Your task to perform on an android device: delete location history Image 0: 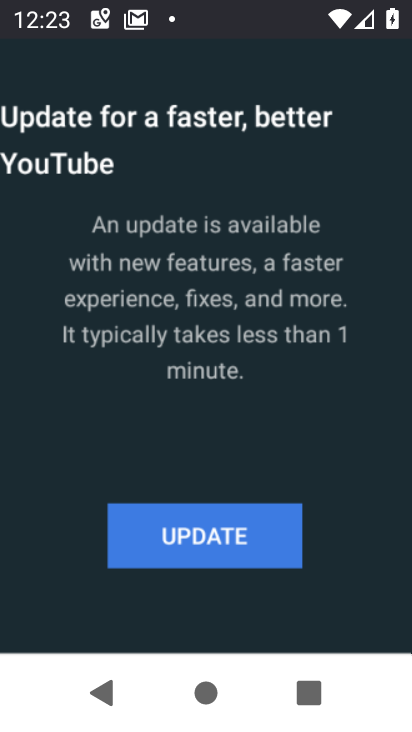
Step 0: press home button
Your task to perform on an android device: delete location history Image 1: 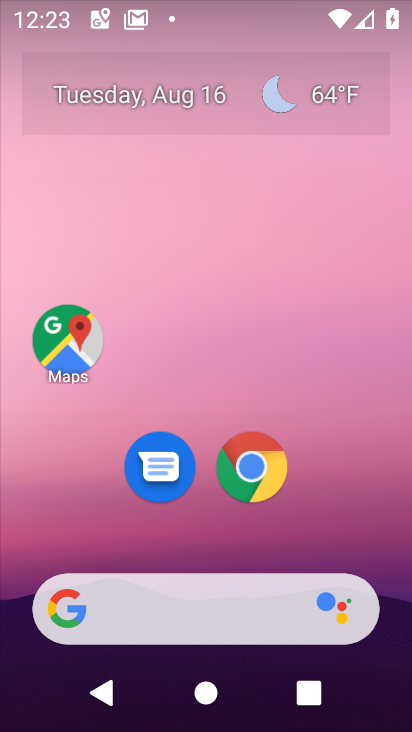
Step 1: drag from (374, 559) to (392, 92)
Your task to perform on an android device: delete location history Image 2: 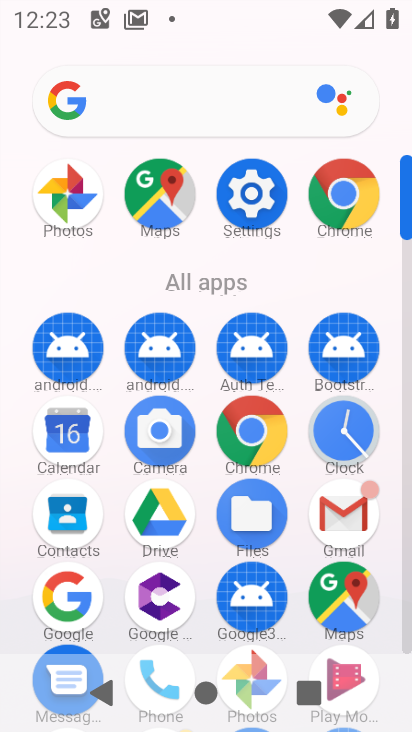
Step 2: click (168, 213)
Your task to perform on an android device: delete location history Image 3: 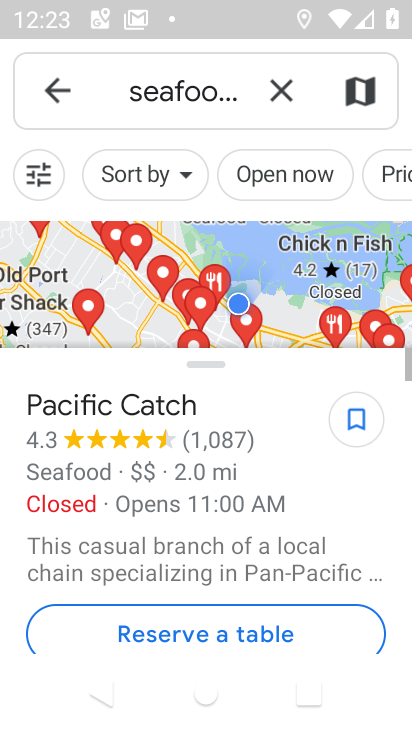
Step 3: press back button
Your task to perform on an android device: delete location history Image 4: 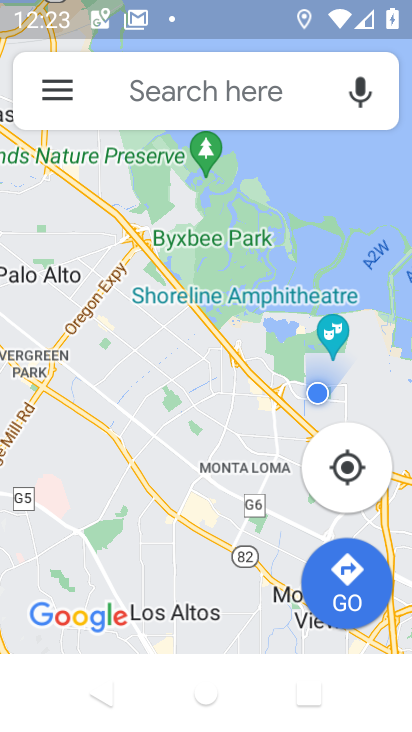
Step 4: click (55, 88)
Your task to perform on an android device: delete location history Image 5: 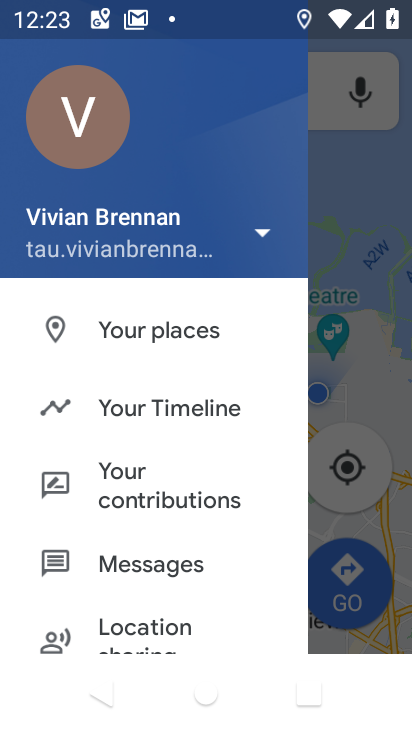
Step 5: click (235, 403)
Your task to perform on an android device: delete location history Image 6: 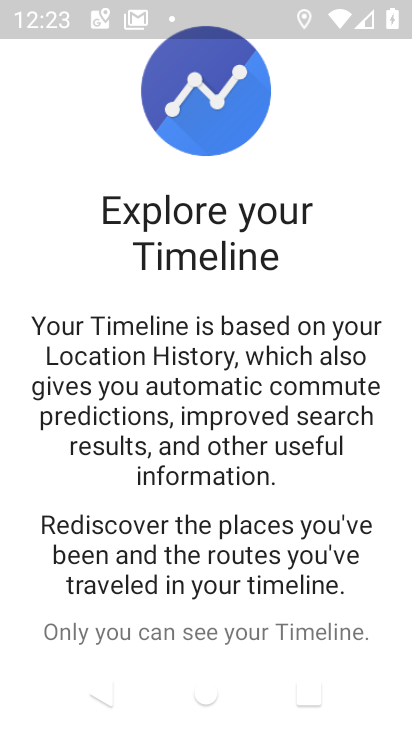
Step 6: drag from (254, 529) to (287, 302)
Your task to perform on an android device: delete location history Image 7: 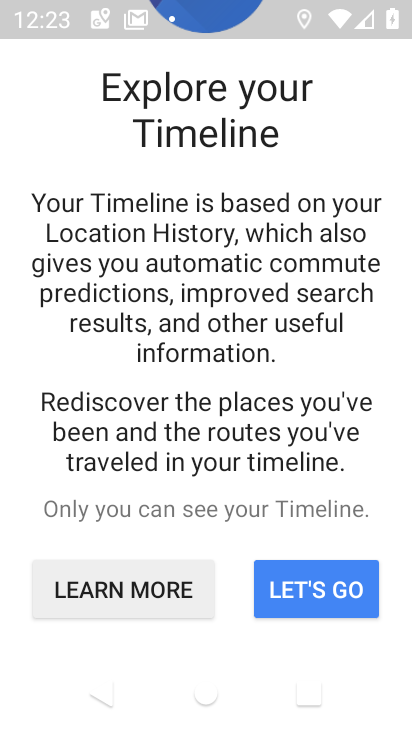
Step 7: click (297, 587)
Your task to perform on an android device: delete location history Image 8: 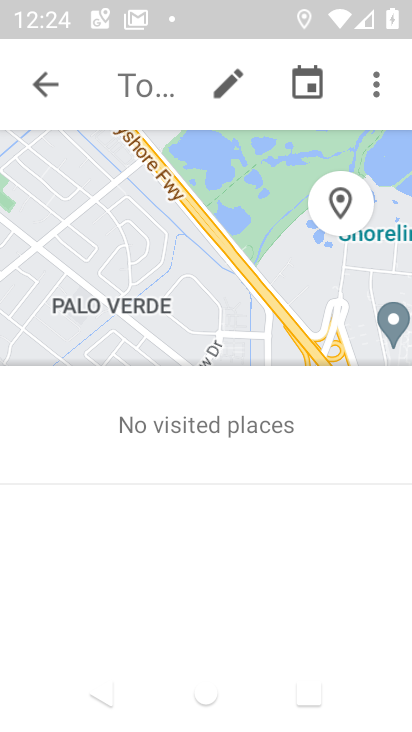
Step 8: click (376, 93)
Your task to perform on an android device: delete location history Image 9: 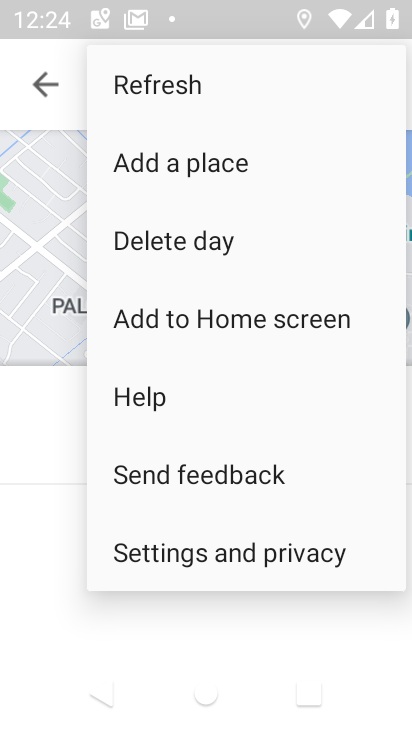
Step 9: click (337, 554)
Your task to perform on an android device: delete location history Image 10: 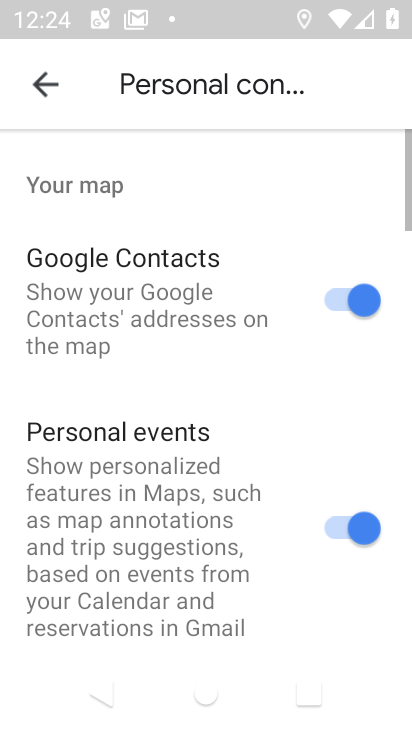
Step 10: drag from (268, 514) to (285, 389)
Your task to perform on an android device: delete location history Image 11: 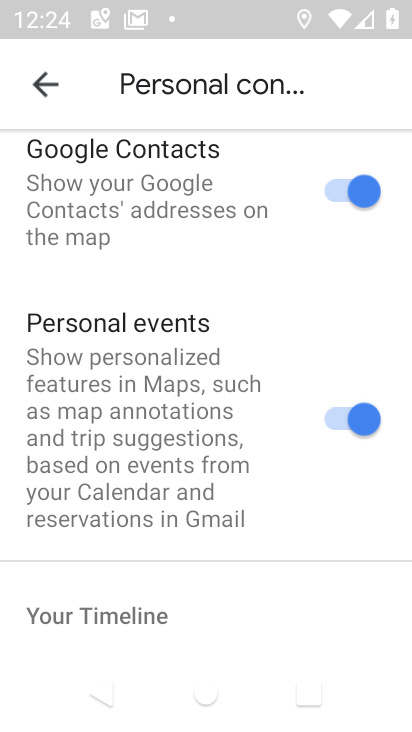
Step 11: drag from (282, 527) to (293, 416)
Your task to perform on an android device: delete location history Image 12: 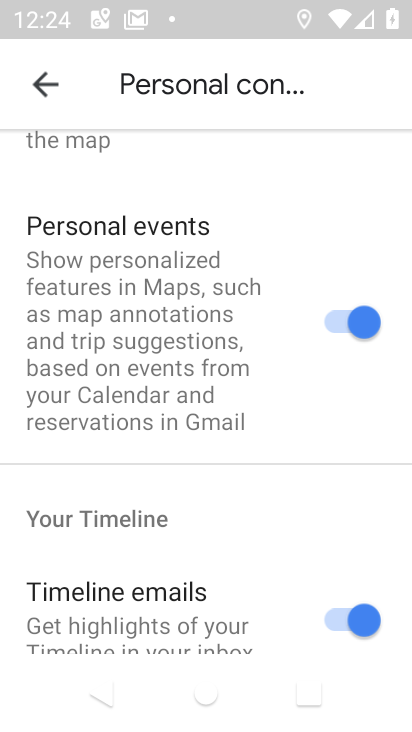
Step 12: drag from (276, 546) to (286, 415)
Your task to perform on an android device: delete location history Image 13: 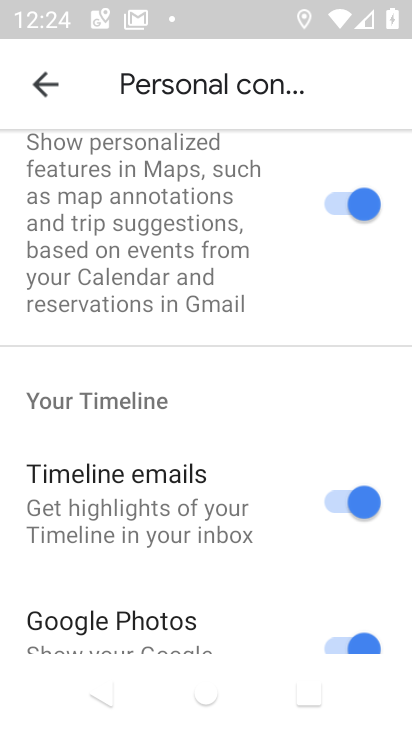
Step 13: drag from (266, 572) to (278, 419)
Your task to perform on an android device: delete location history Image 14: 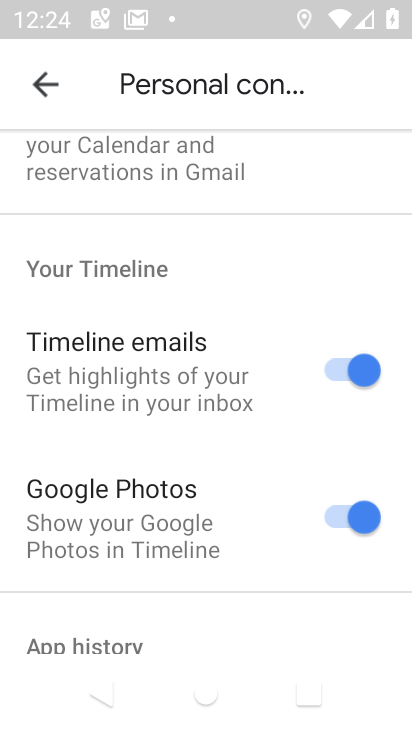
Step 14: drag from (262, 566) to (280, 392)
Your task to perform on an android device: delete location history Image 15: 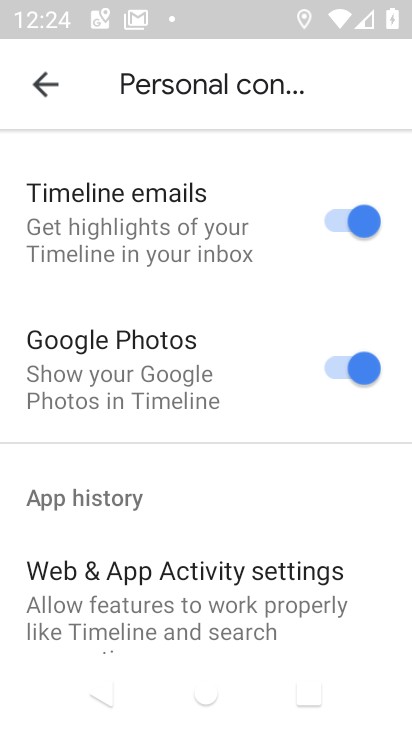
Step 15: drag from (254, 568) to (259, 381)
Your task to perform on an android device: delete location history Image 16: 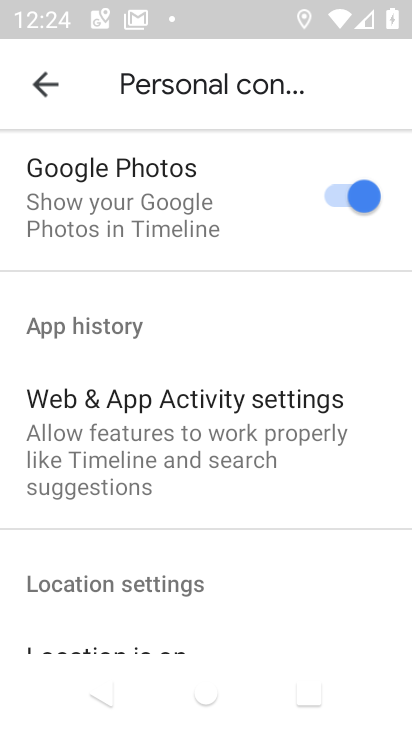
Step 16: drag from (218, 601) to (244, 431)
Your task to perform on an android device: delete location history Image 17: 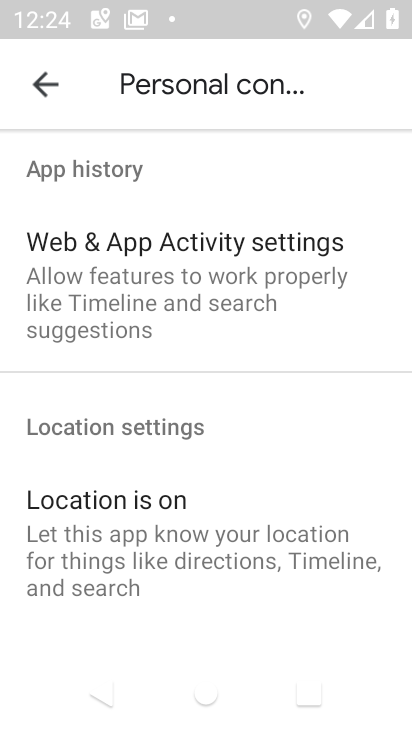
Step 17: drag from (230, 613) to (265, 402)
Your task to perform on an android device: delete location history Image 18: 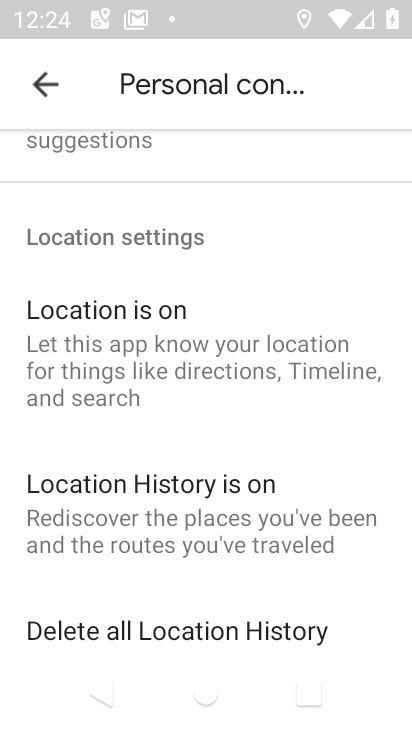
Step 18: drag from (264, 536) to (277, 308)
Your task to perform on an android device: delete location history Image 19: 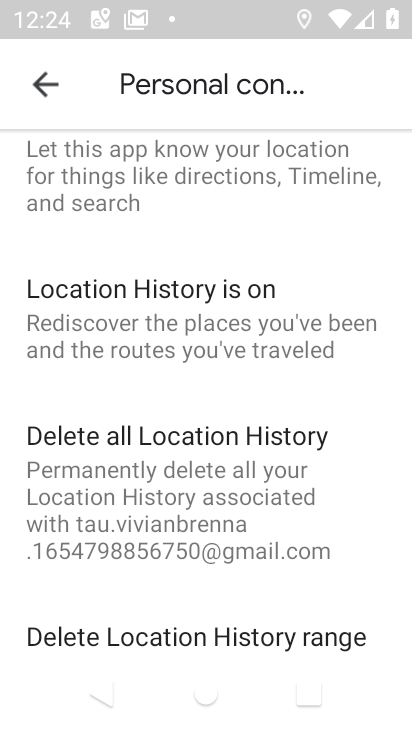
Step 19: click (251, 473)
Your task to perform on an android device: delete location history Image 20: 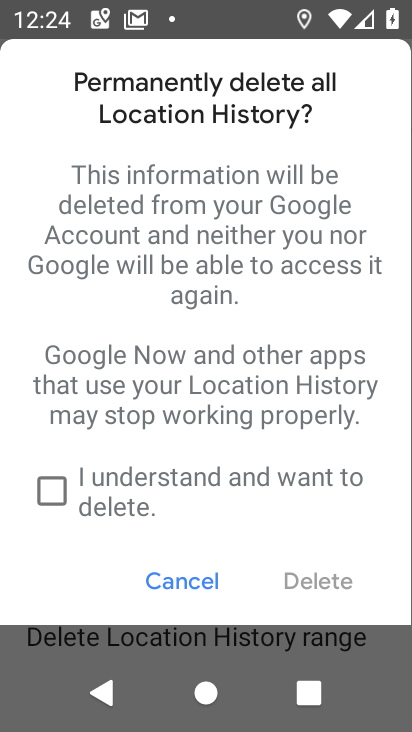
Step 20: click (52, 495)
Your task to perform on an android device: delete location history Image 21: 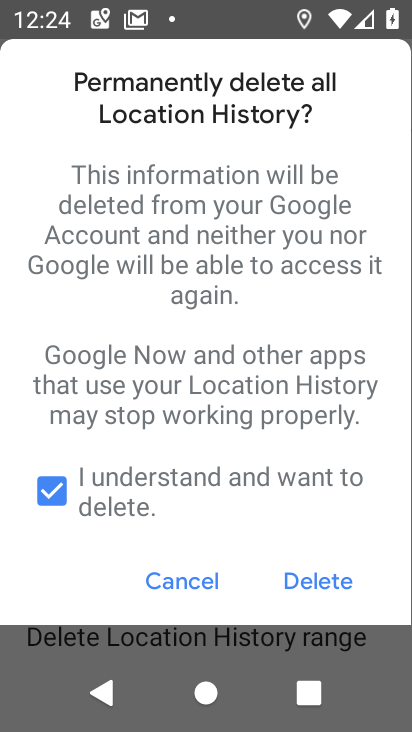
Step 21: click (330, 584)
Your task to perform on an android device: delete location history Image 22: 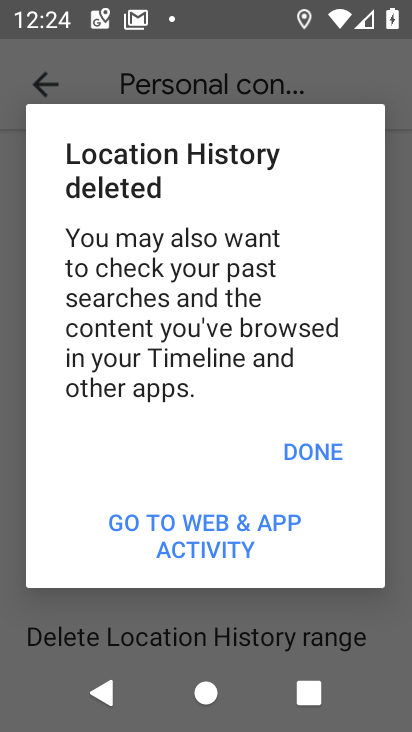
Step 22: task complete